Your task to perform on an android device: Go to location settings Image 0: 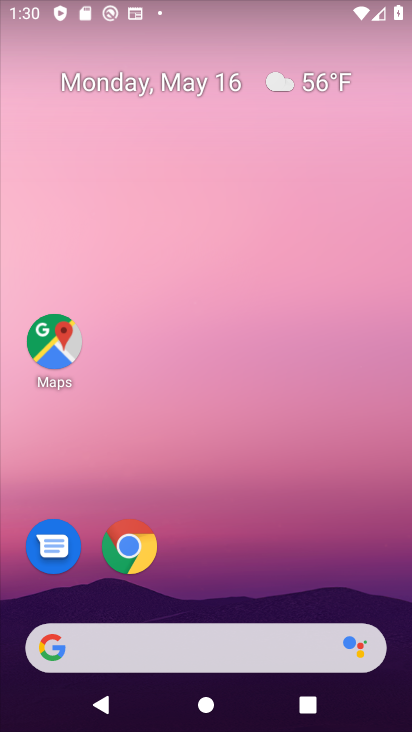
Step 0: drag from (365, 568) to (267, 48)
Your task to perform on an android device: Go to location settings Image 1: 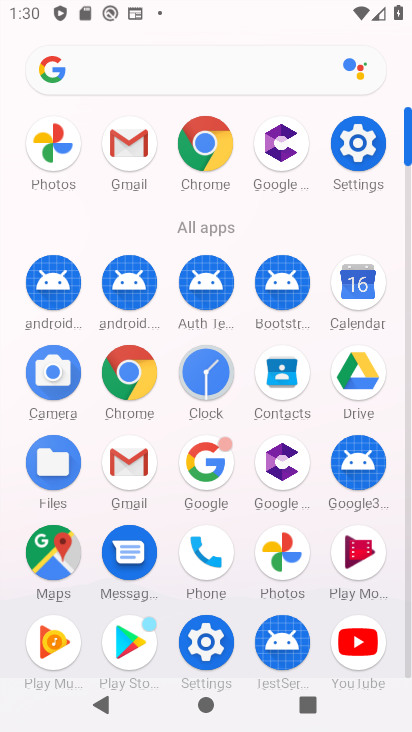
Step 1: click (372, 128)
Your task to perform on an android device: Go to location settings Image 2: 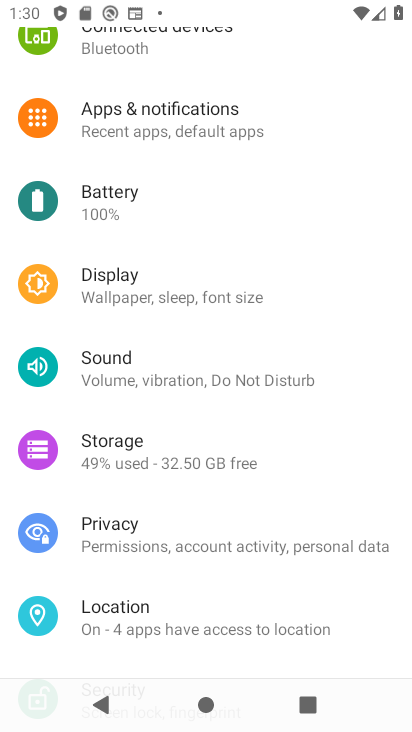
Step 2: drag from (153, 597) to (162, 473)
Your task to perform on an android device: Go to location settings Image 3: 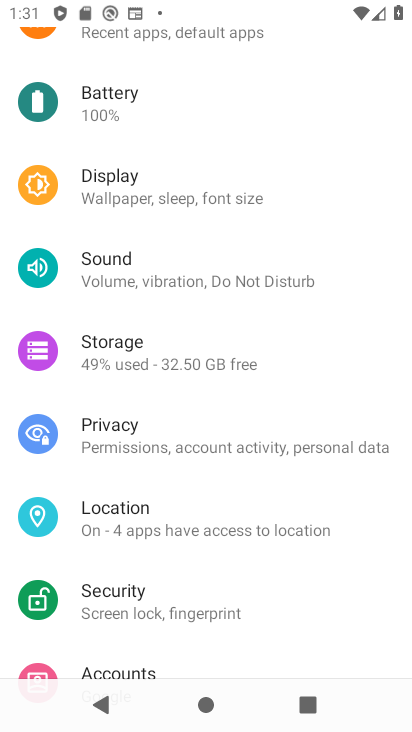
Step 3: click (146, 501)
Your task to perform on an android device: Go to location settings Image 4: 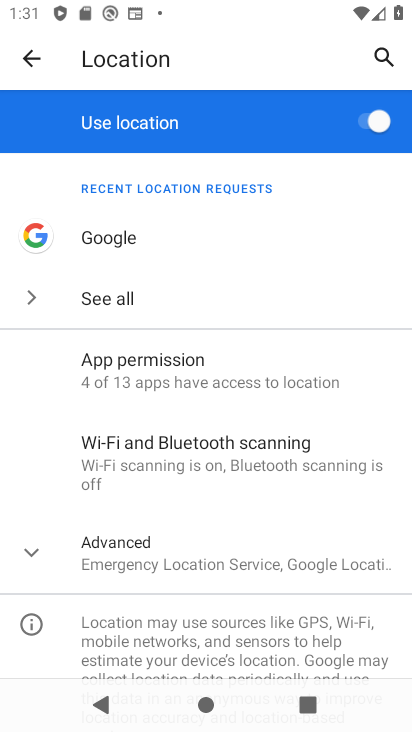
Step 4: task complete